Your task to perform on an android device: Do I have any events tomorrow? Image 0: 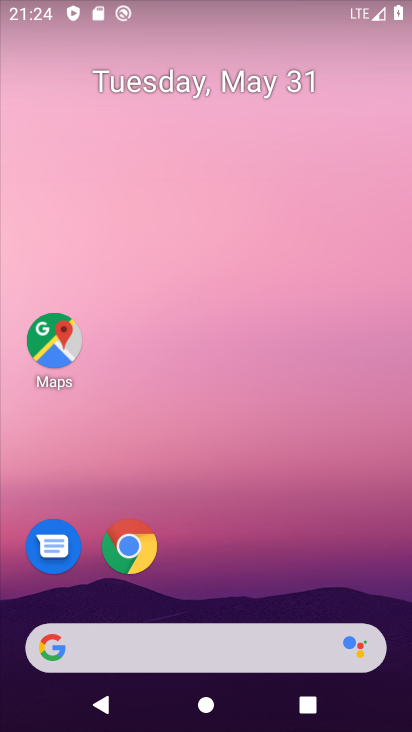
Step 0: drag from (406, 705) to (378, 118)
Your task to perform on an android device: Do I have any events tomorrow? Image 1: 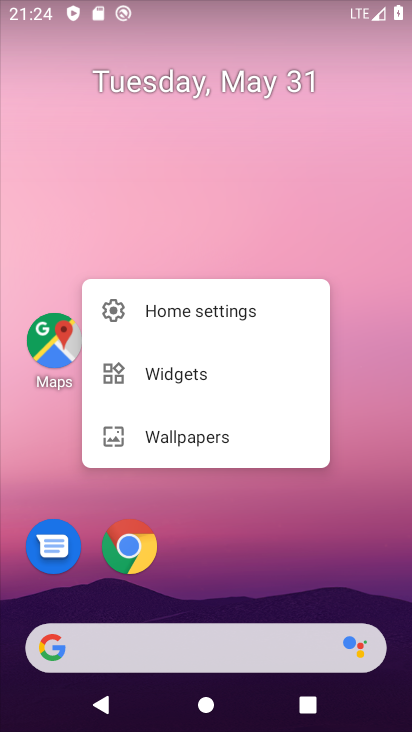
Step 1: drag from (396, 688) to (347, 2)
Your task to perform on an android device: Do I have any events tomorrow? Image 2: 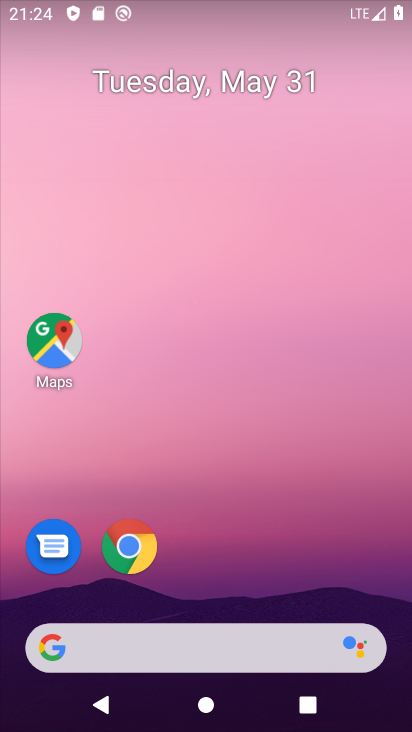
Step 2: drag from (404, 697) to (400, 60)
Your task to perform on an android device: Do I have any events tomorrow? Image 3: 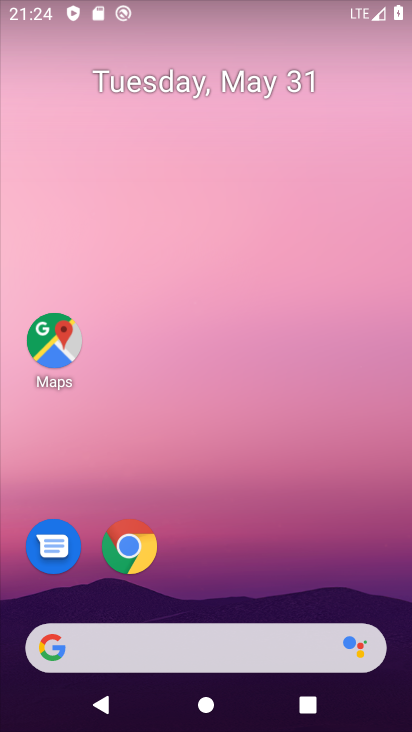
Step 3: drag from (392, 714) to (377, 73)
Your task to perform on an android device: Do I have any events tomorrow? Image 4: 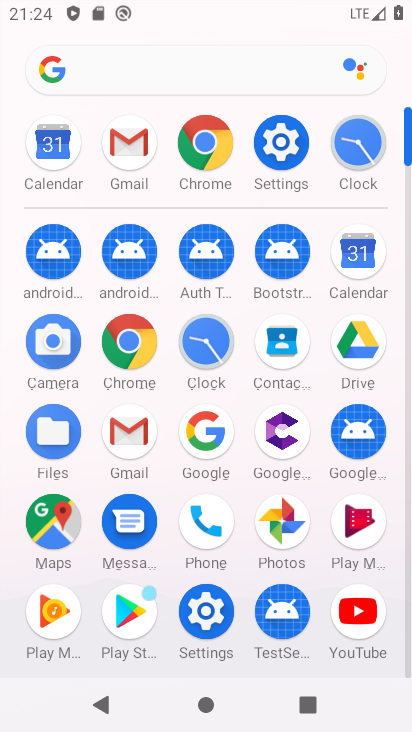
Step 4: click (282, 154)
Your task to perform on an android device: Do I have any events tomorrow? Image 5: 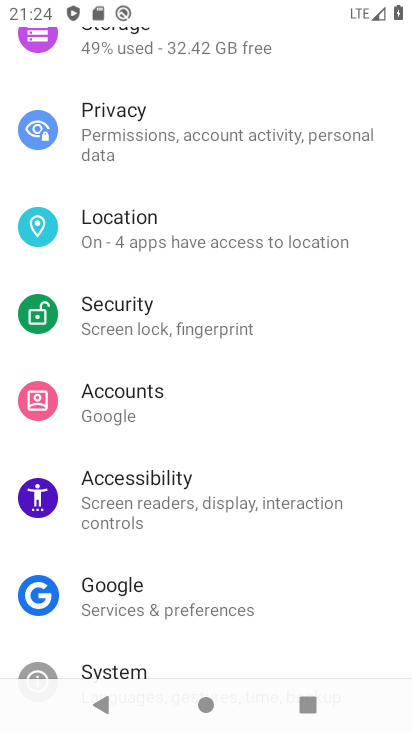
Step 5: drag from (276, 641) to (259, 301)
Your task to perform on an android device: Do I have any events tomorrow? Image 6: 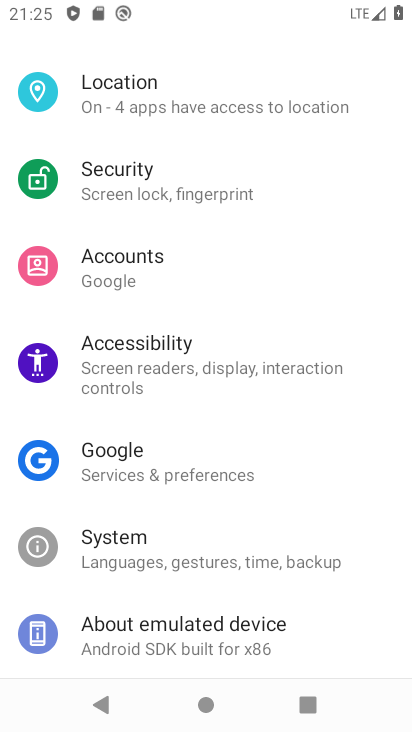
Step 6: press home button
Your task to perform on an android device: Do I have any events tomorrow? Image 7: 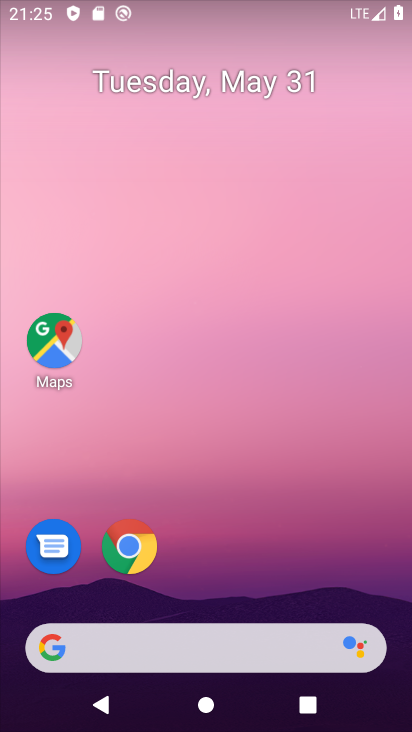
Step 7: drag from (397, 661) to (310, 134)
Your task to perform on an android device: Do I have any events tomorrow? Image 8: 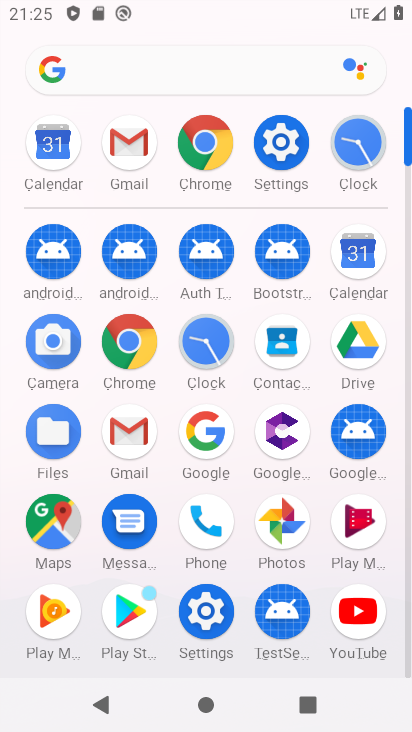
Step 8: click (364, 249)
Your task to perform on an android device: Do I have any events tomorrow? Image 9: 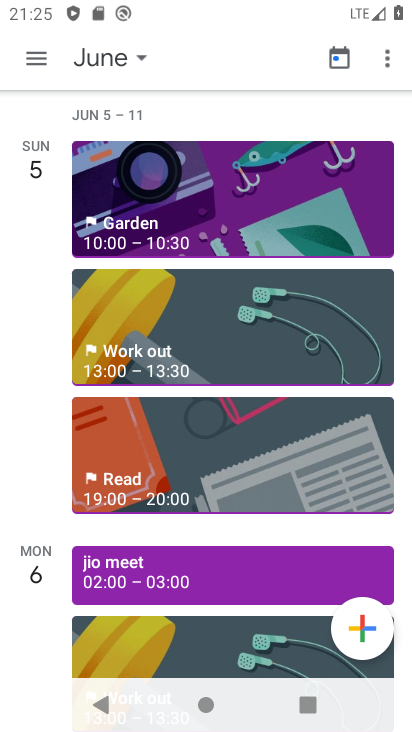
Step 9: click (141, 56)
Your task to perform on an android device: Do I have any events tomorrow? Image 10: 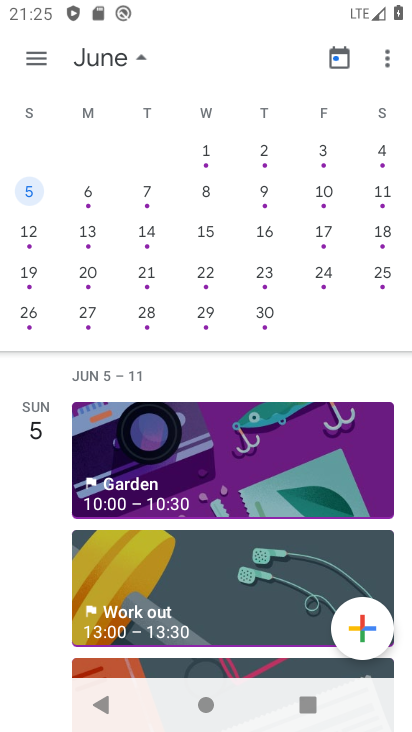
Step 10: click (206, 146)
Your task to perform on an android device: Do I have any events tomorrow? Image 11: 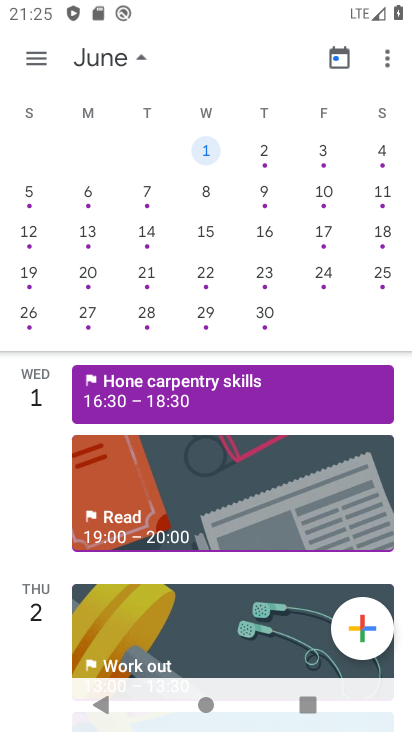
Step 11: click (38, 57)
Your task to perform on an android device: Do I have any events tomorrow? Image 12: 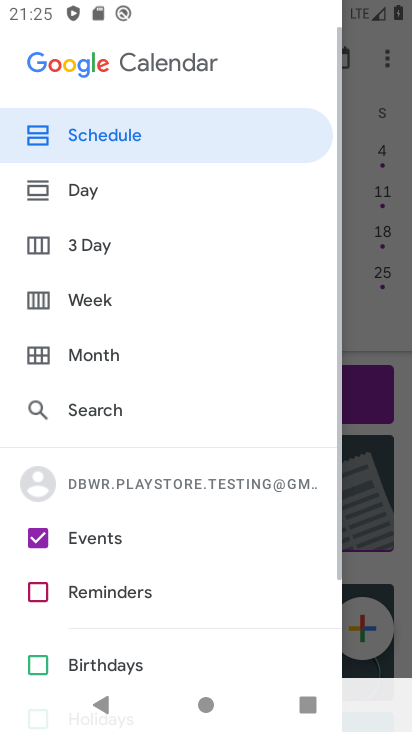
Step 12: click (81, 181)
Your task to perform on an android device: Do I have any events tomorrow? Image 13: 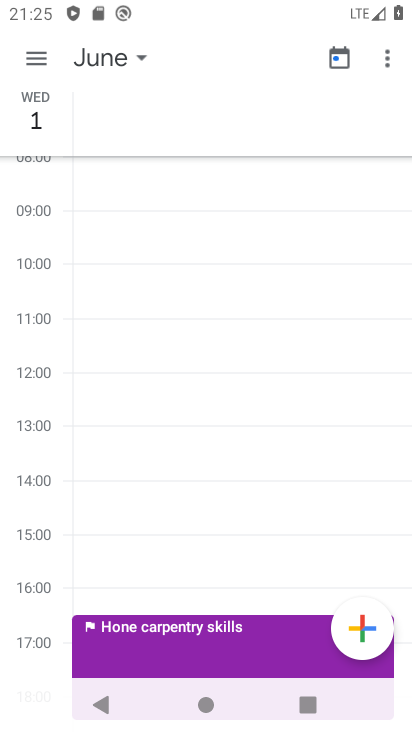
Step 13: click (40, 57)
Your task to perform on an android device: Do I have any events tomorrow? Image 14: 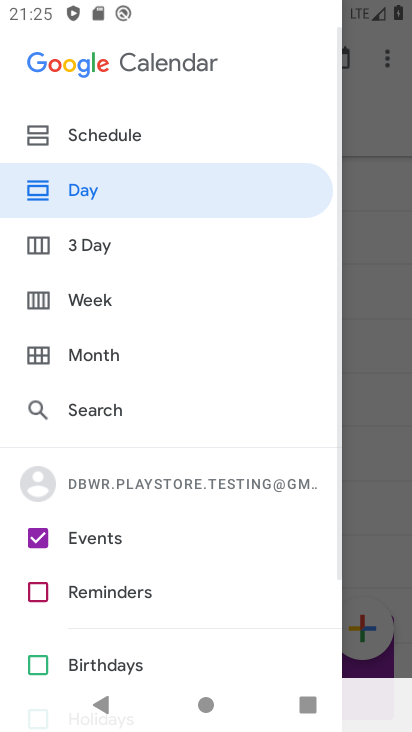
Step 14: click (93, 136)
Your task to perform on an android device: Do I have any events tomorrow? Image 15: 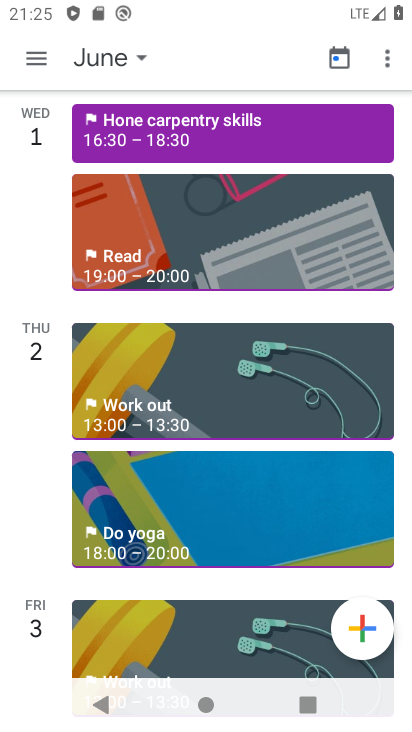
Step 15: task complete